Your task to perform on an android device: Go to eBay Image 0: 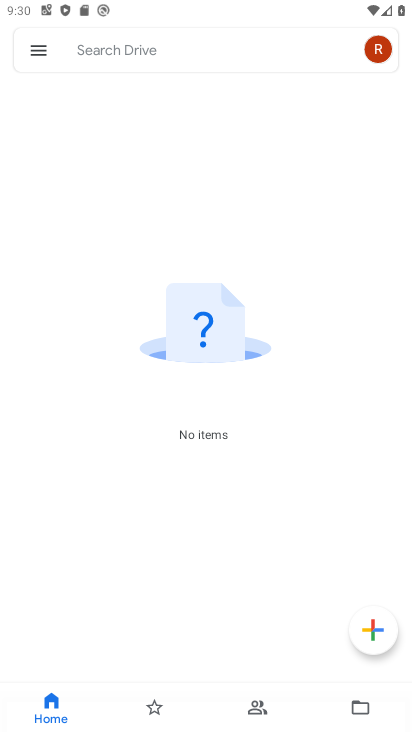
Step 0: press home button
Your task to perform on an android device: Go to eBay Image 1: 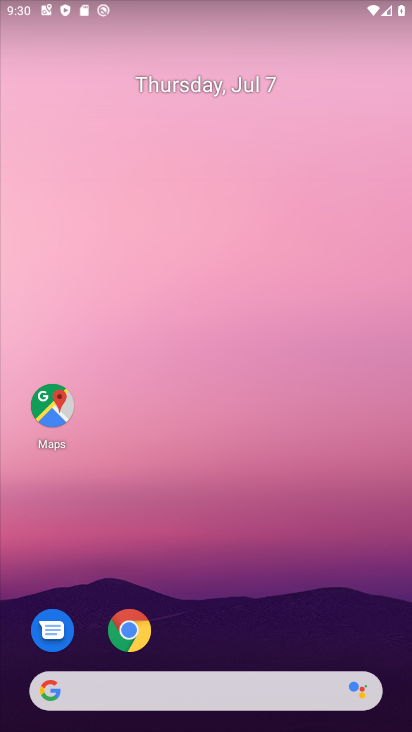
Step 1: click (128, 636)
Your task to perform on an android device: Go to eBay Image 2: 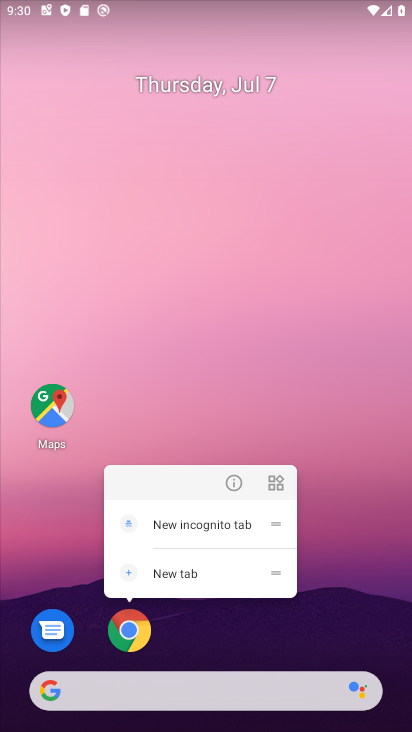
Step 2: click (127, 635)
Your task to perform on an android device: Go to eBay Image 3: 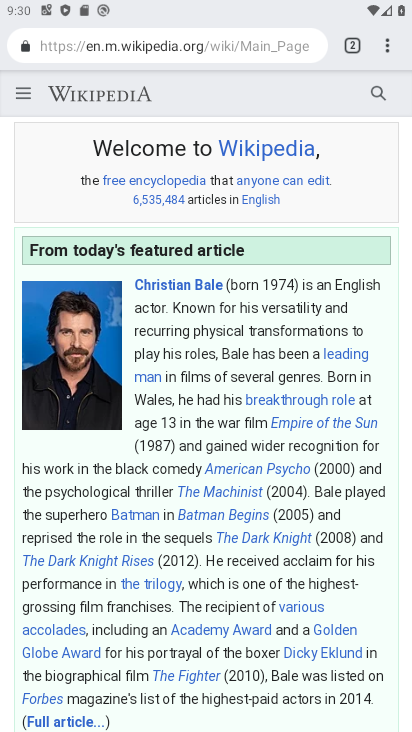
Step 3: click (359, 43)
Your task to perform on an android device: Go to eBay Image 4: 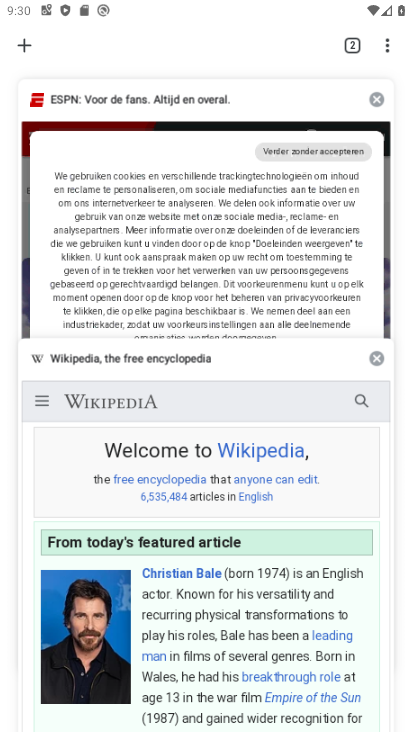
Step 4: click (378, 98)
Your task to perform on an android device: Go to eBay Image 5: 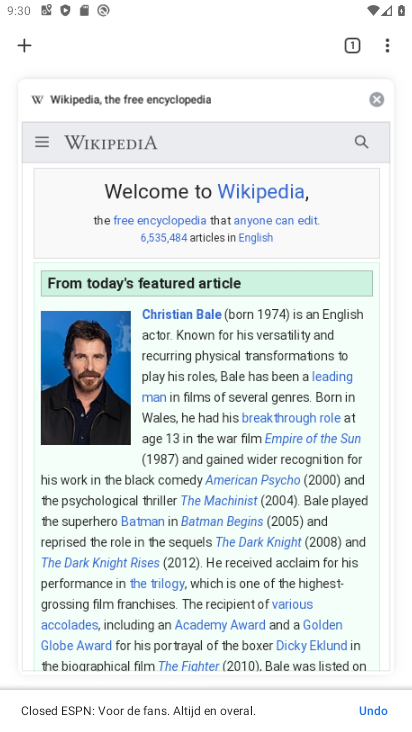
Step 5: click (377, 99)
Your task to perform on an android device: Go to eBay Image 6: 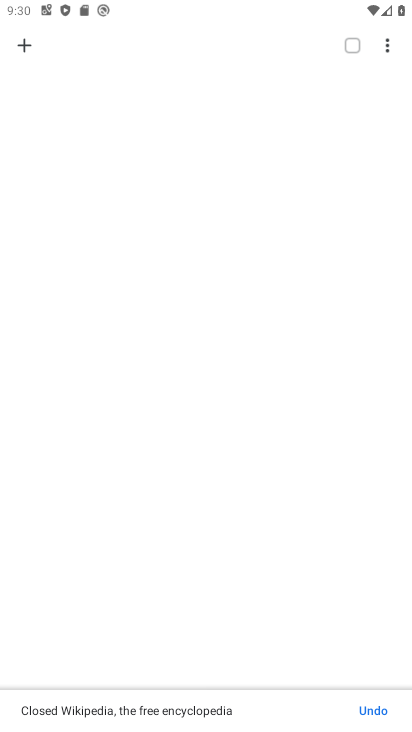
Step 6: click (24, 45)
Your task to perform on an android device: Go to eBay Image 7: 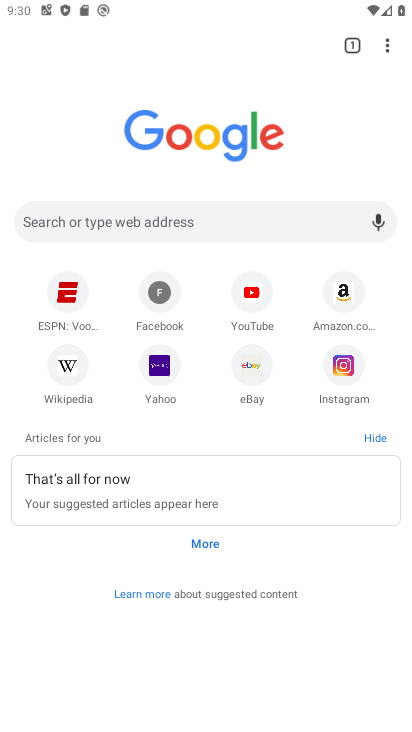
Step 7: click (243, 365)
Your task to perform on an android device: Go to eBay Image 8: 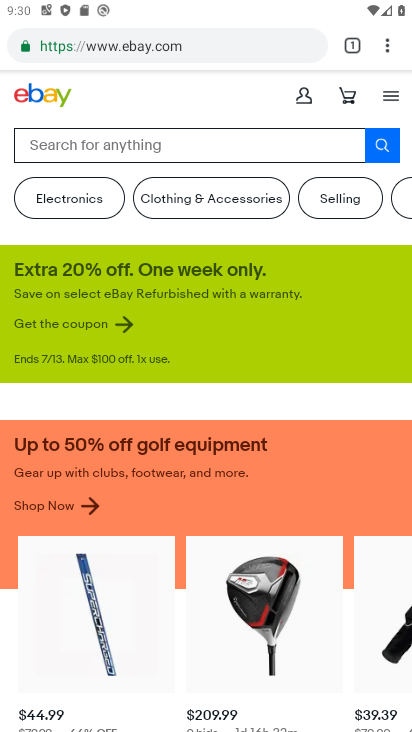
Step 8: task complete